Your task to perform on an android device: turn on showing notifications on the lock screen Image 0: 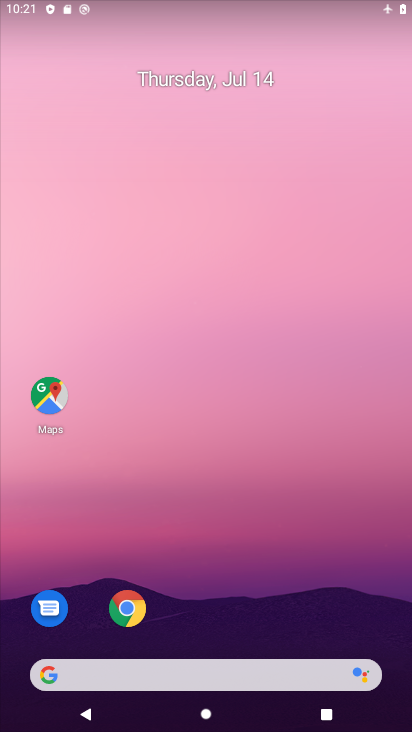
Step 0: drag from (222, 629) to (226, 10)
Your task to perform on an android device: turn on showing notifications on the lock screen Image 1: 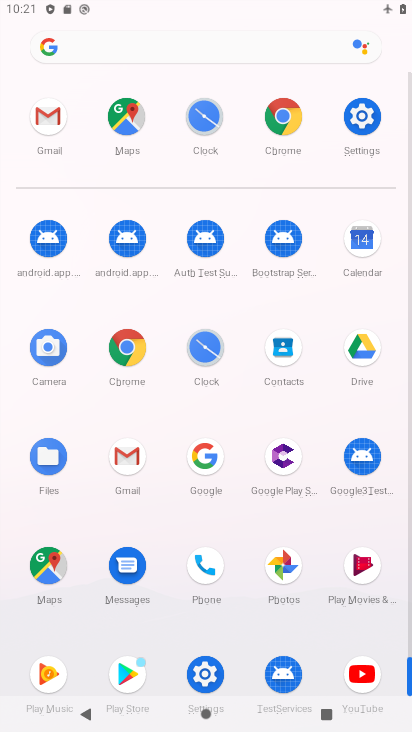
Step 1: click (206, 676)
Your task to perform on an android device: turn on showing notifications on the lock screen Image 2: 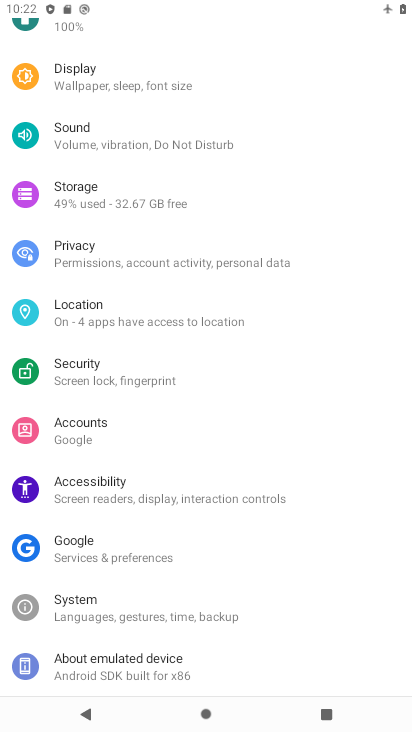
Step 2: drag from (175, 220) to (187, 675)
Your task to perform on an android device: turn on showing notifications on the lock screen Image 3: 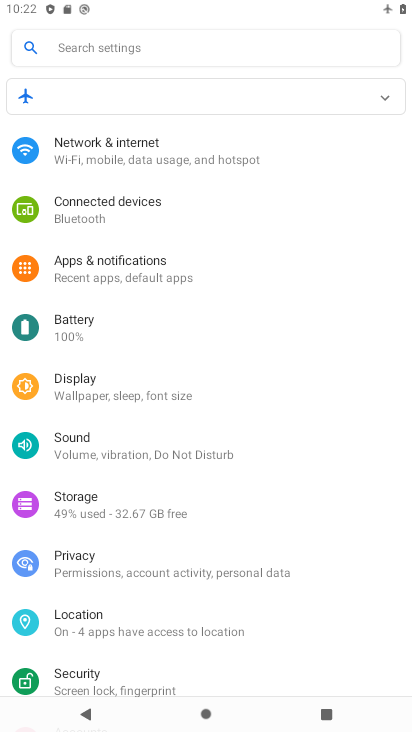
Step 3: drag from (228, 650) to (234, 698)
Your task to perform on an android device: turn on showing notifications on the lock screen Image 4: 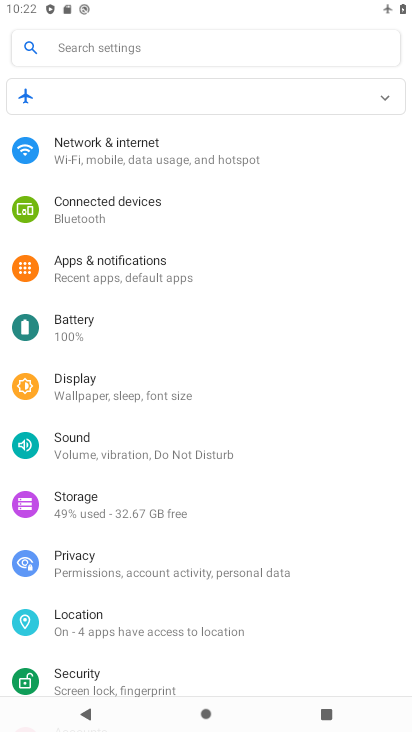
Step 4: click (154, 280)
Your task to perform on an android device: turn on showing notifications on the lock screen Image 5: 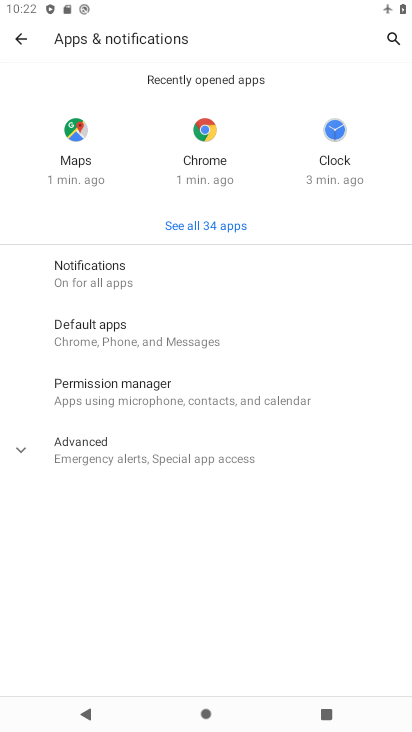
Step 5: click (151, 283)
Your task to perform on an android device: turn on showing notifications on the lock screen Image 6: 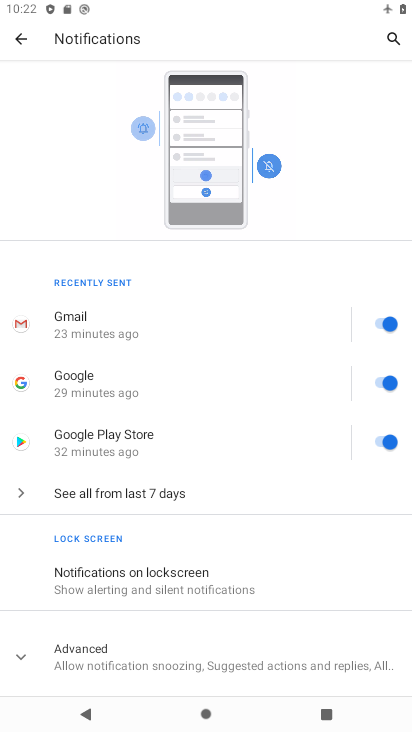
Step 6: click (225, 591)
Your task to perform on an android device: turn on showing notifications on the lock screen Image 7: 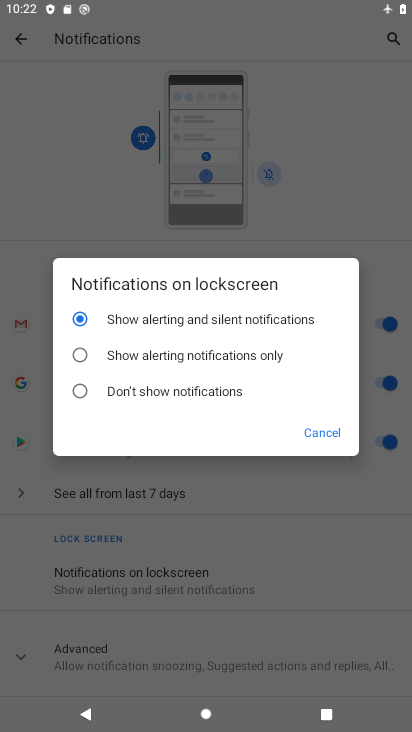
Step 7: task complete